Your task to perform on an android device: Go to Android settings Image 0: 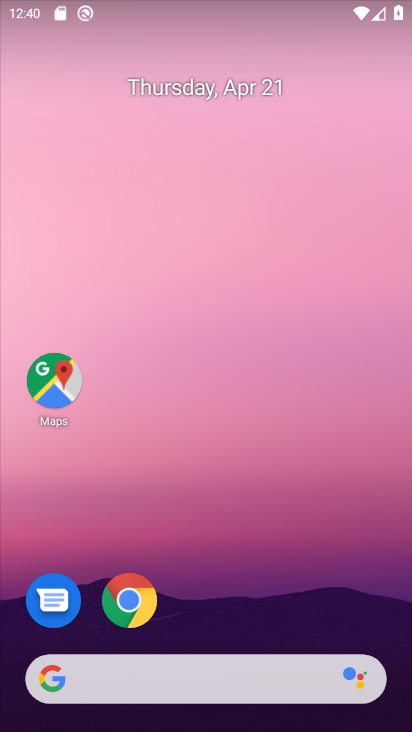
Step 0: click (351, 257)
Your task to perform on an android device: Go to Android settings Image 1: 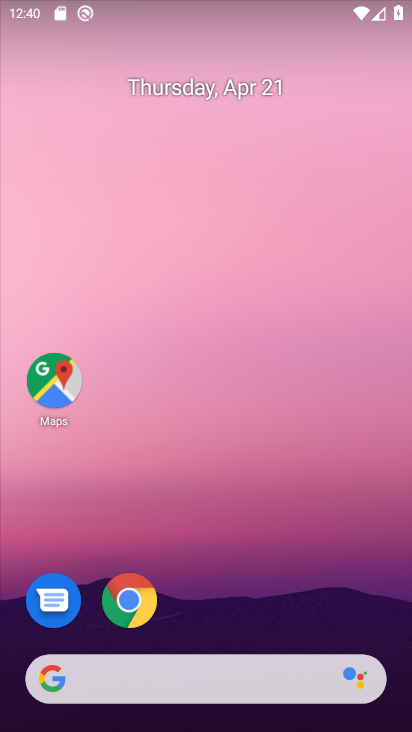
Step 1: click (321, 181)
Your task to perform on an android device: Go to Android settings Image 2: 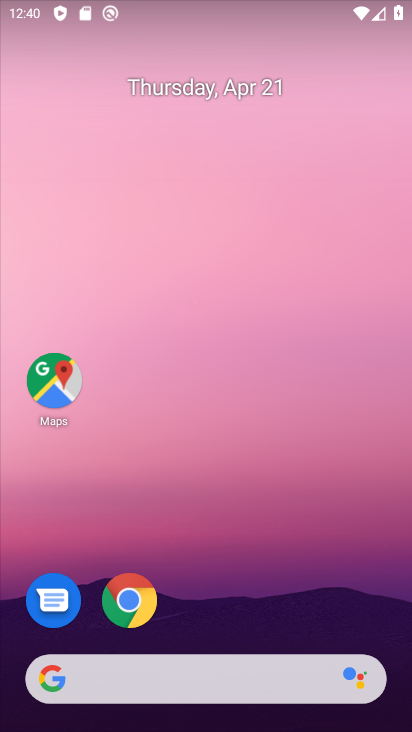
Step 2: click (336, 165)
Your task to perform on an android device: Go to Android settings Image 3: 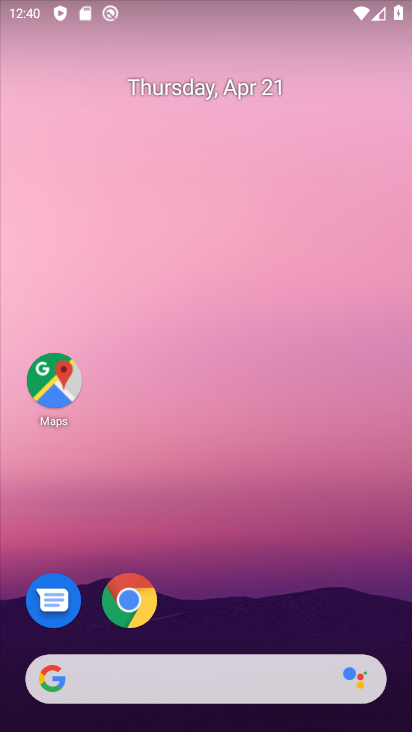
Step 3: drag from (369, 481) to (363, 230)
Your task to perform on an android device: Go to Android settings Image 4: 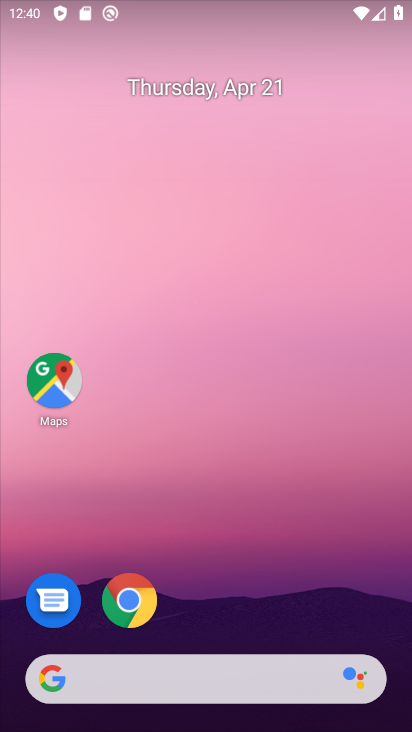
Step 4: click (378, 316)
Your task to perform on an android device: Go to Android settings Image 5: 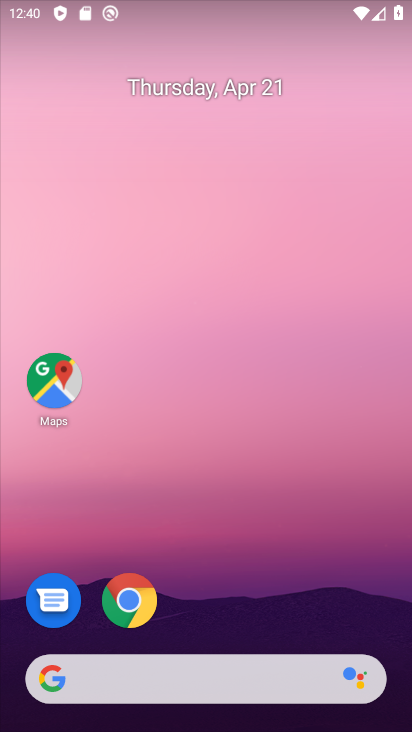
Step 5: drag from (353, 602) to (355, 199)
Your task to perform on an android device: Go to Android settings Image 6: 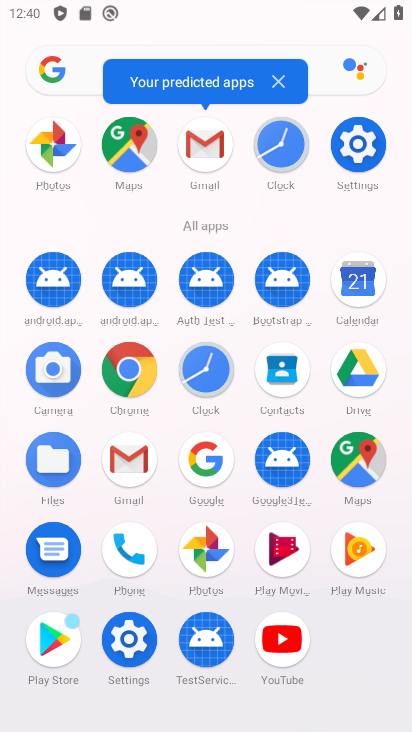
Step 6: click (359, 146)
Your task to perform on an android device: Go to Android settings Image 7: 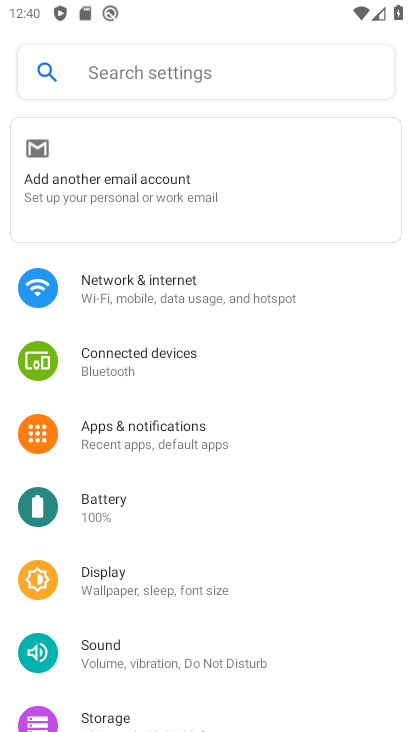
Step 7: click (339, 318)
Your task to perform on an android device: Go to Android settings Image 8: 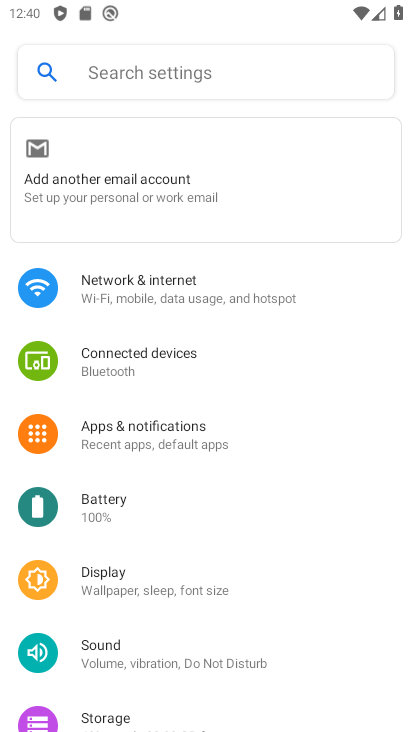
Step 8: task complete